Your task to perform on an android device: Go to calendar. Show me events next week Image 0: 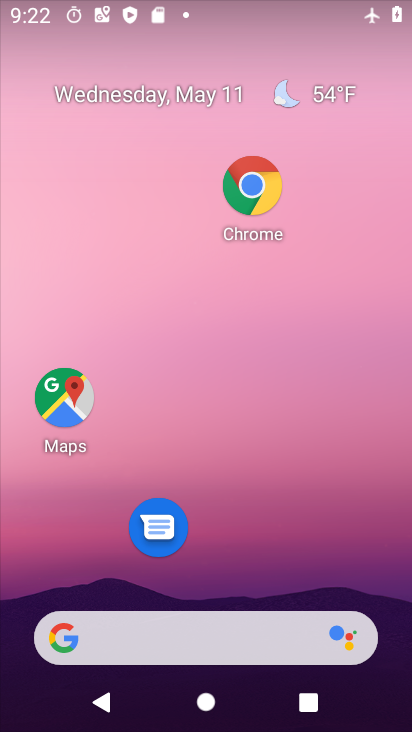
Step 0: drag from (246, 564) to (263, 81)
Your task to perform on an android device: Go to calendar. Show me events next week Image 1: 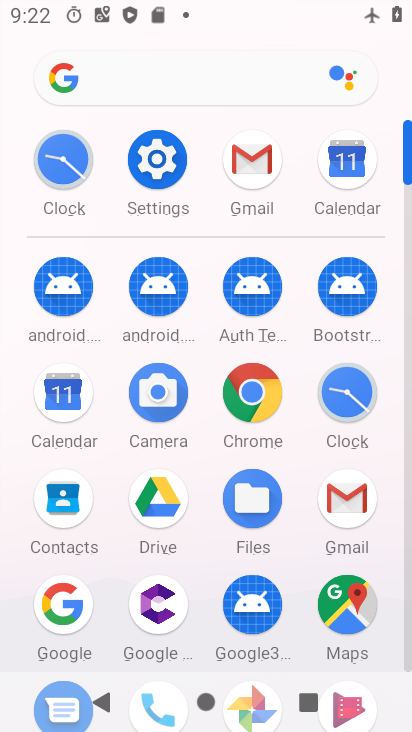
Step 1: click (62, 392)
Your task to perform on an android device: Go to calendar. Show me events next week Image 2: 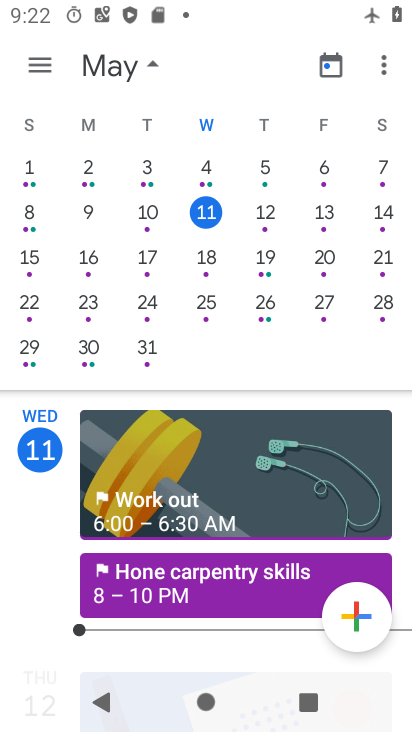
Step 2: click (263, 257)
Your task to perform on an android device: Go to calendar. Show me events next week Image 3: 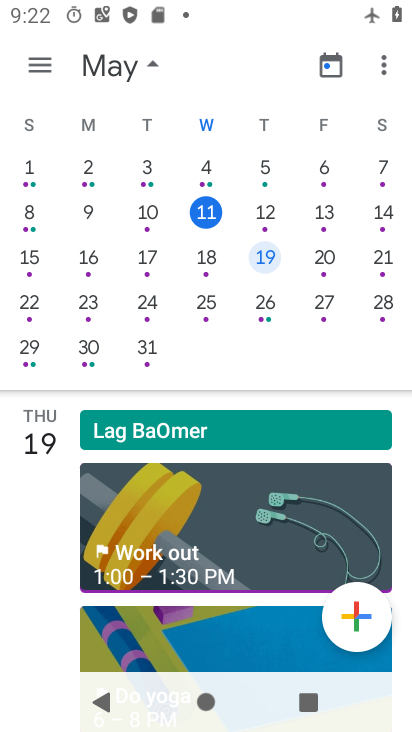
Step 3: task complete